Your task to perform on an android device: empty trash in the gmail app Image 0: 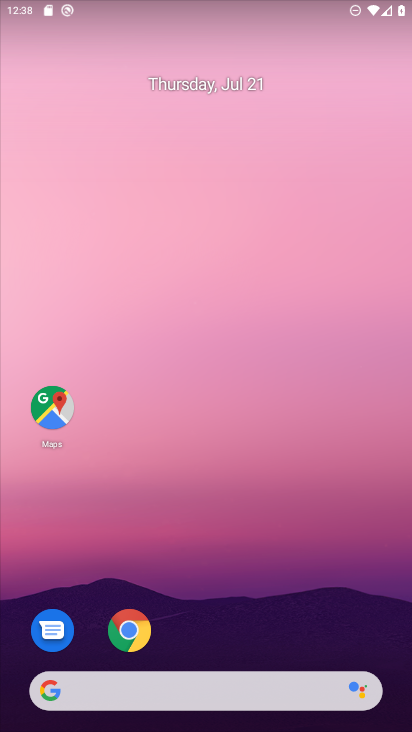
Step 0: drag from (384, 682) to (353, 115)
Your task to perform on an android device: empty trash in the gmail app Image 1: 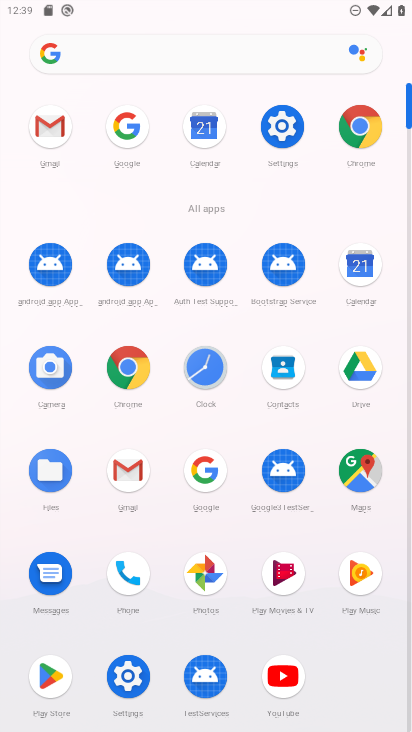
Step 1: click (131, 470)
Your task to perform on an android device: empty trash in the gmail app Image 2: 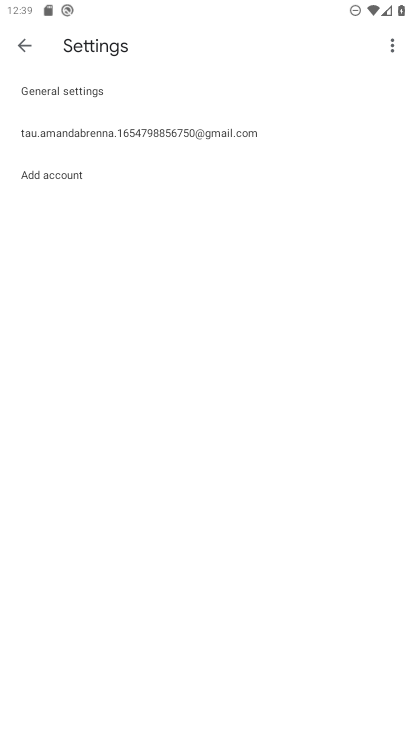
Step 2: click (23, 45)
Your task to perform on an android device: empty trash in the gmail app Image 3: 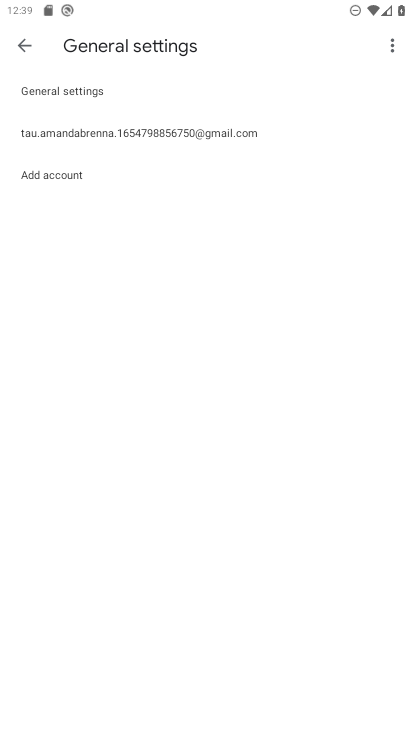
Step 3: click (23, 47)
Your task to perform on an android device: empty trash in the gmail app Image 4: 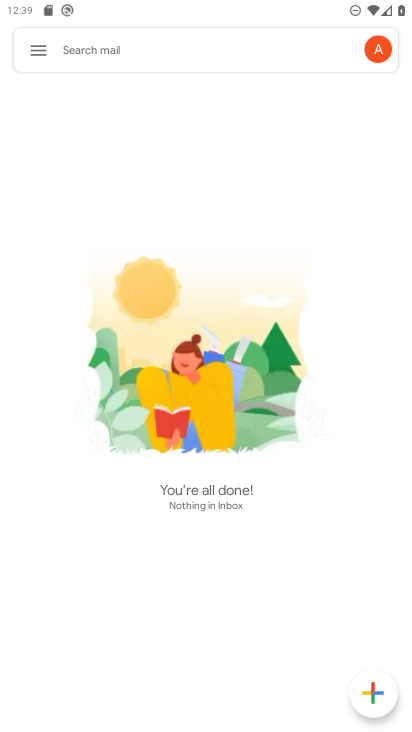
Step 4: click (43, 46)
Your task to perform on an android device: empty trash in the gmail app Image 5: 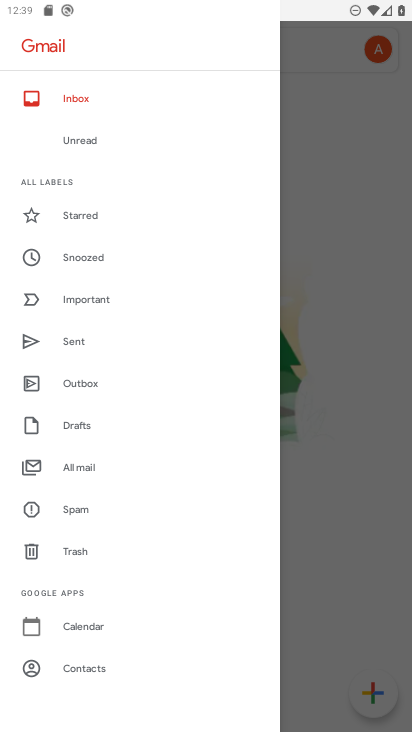
Step 5: click (64, 547)
Your task to perform on an android device: empty trash in the gmail app Image 6: 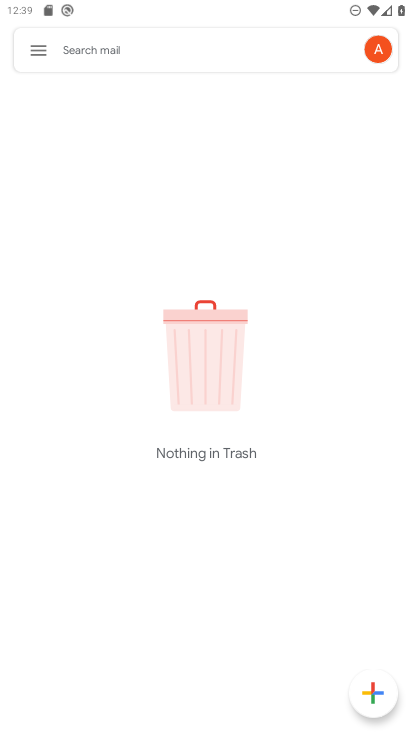
Step 6: task complete